Your task to perform on an android device: turn off improve location accuracy Image 0: 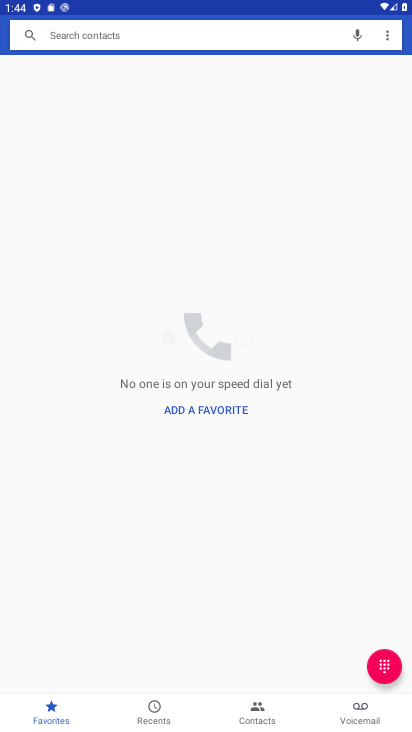
Step 0: press home button
Your task to perform on an android device: turn off improve location accuracy Image 1: 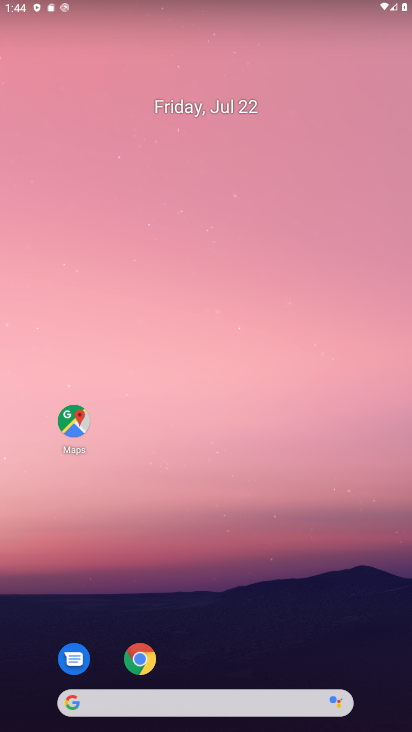
Step 1: drag from (223, 658) to (197, 103)
Your task to perform on an android device: turn off improve location accuracy Image 2: 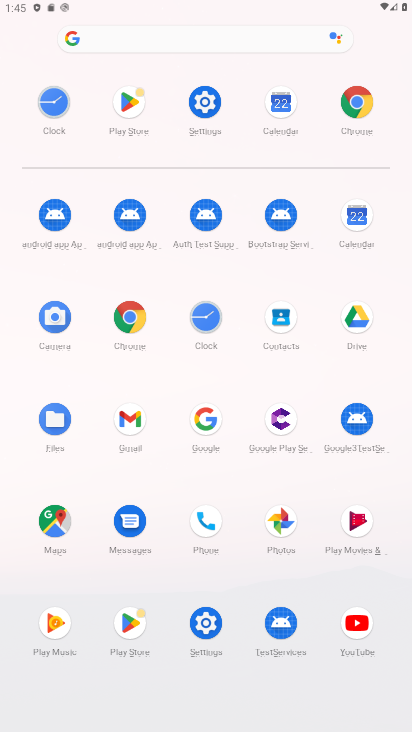
Step 2: click (224, 109)
Your task to perform on an android device: turn off improve location accuracy Image 3: 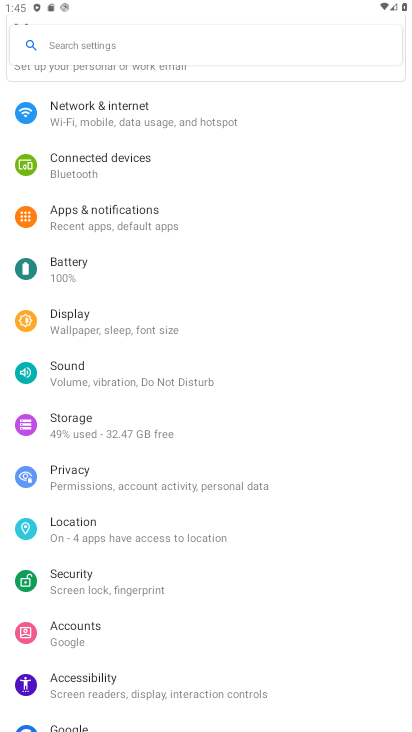
Step 3: click (223, 104)
Your task to perform on an android device: turn off improve location accuracy Image 4: 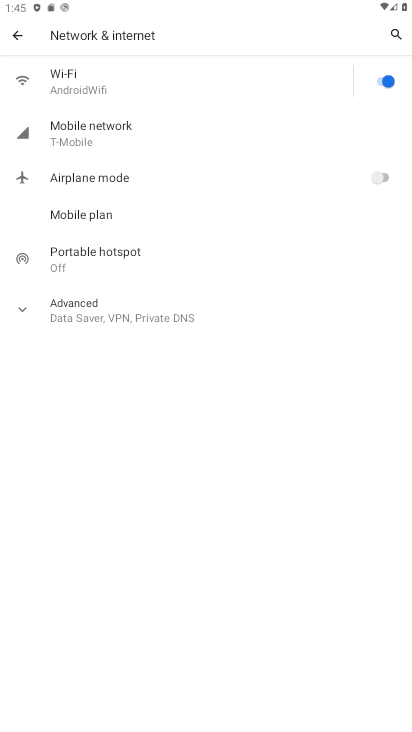
Step 4: task complete